Your task to perform on an android device: turn on the 12-hour format for clock Image 0: 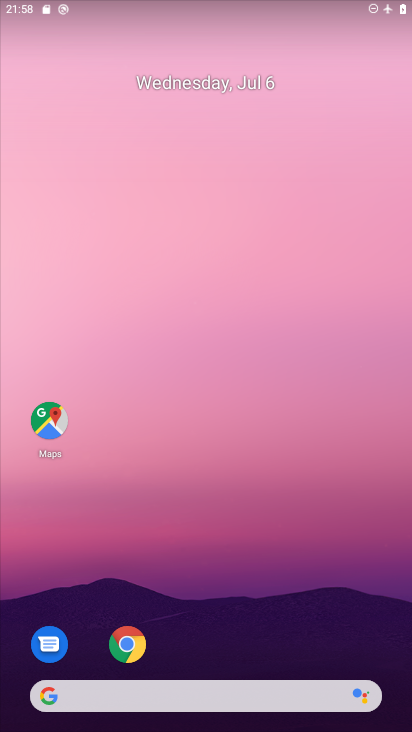
Step 0: drag from (203, 657) to (210, 176)
Your task to perform on an android device: turn on the 12-hour format for clock Image 1: 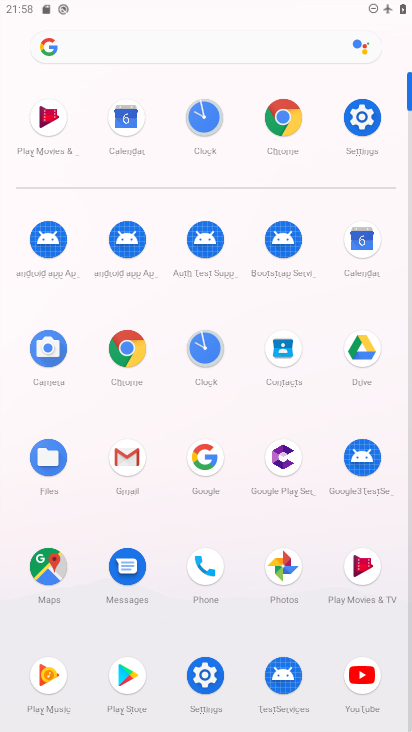
Step 1: click (214, 124)
Your task to perform on an android device: turn on the 12-hour format for clock Image 2: 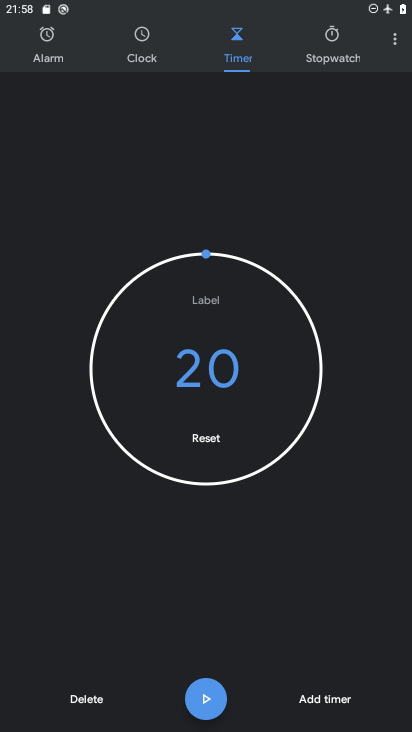
Step 2: click (394, 50)
Your task to perform on an android device: turn on the 12-hour format for clock Image 3: 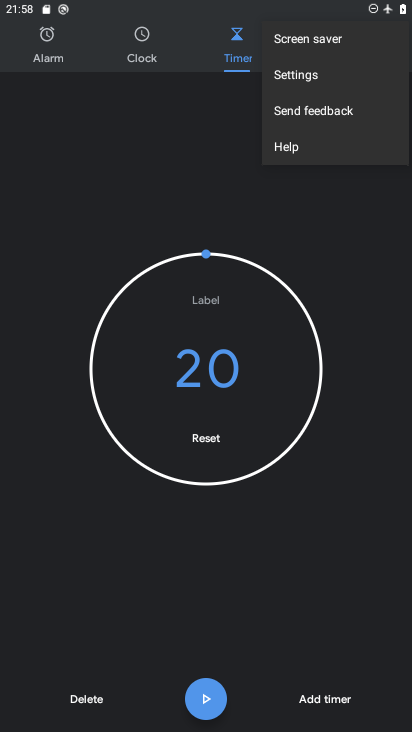
Step 3: click (322, 77)
Your task to perform on an android device: turn on the 12-hour format for clock Image 4: 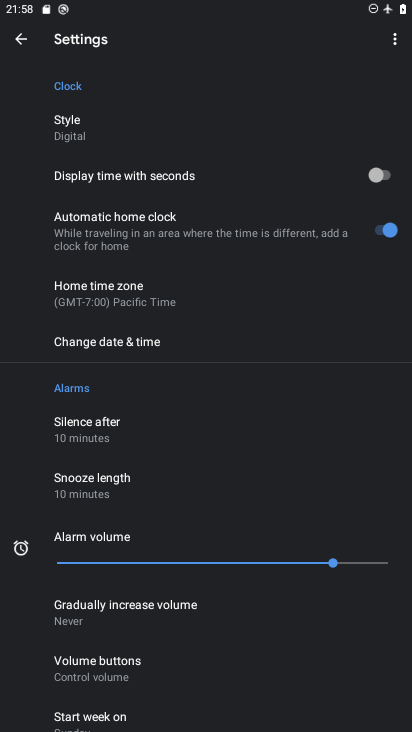
Step 4: click (164, 347)
Your task to perform on an android device: turn on the 12-hour format for clock Image 5: 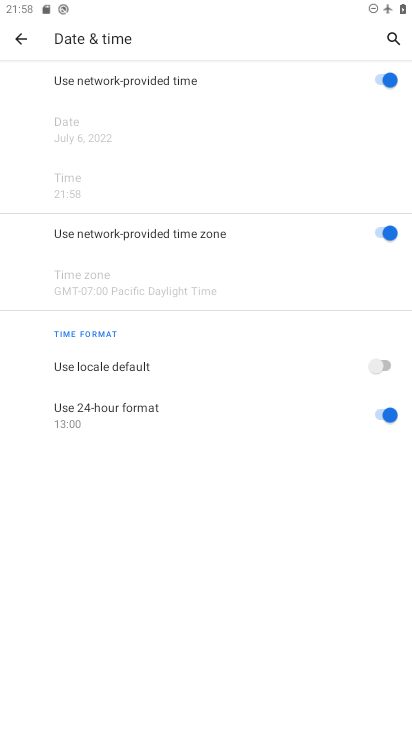
Step 5: click (368, 387)
Your task to perform on an android device: turn on the 12-hour format for clock Image 6: 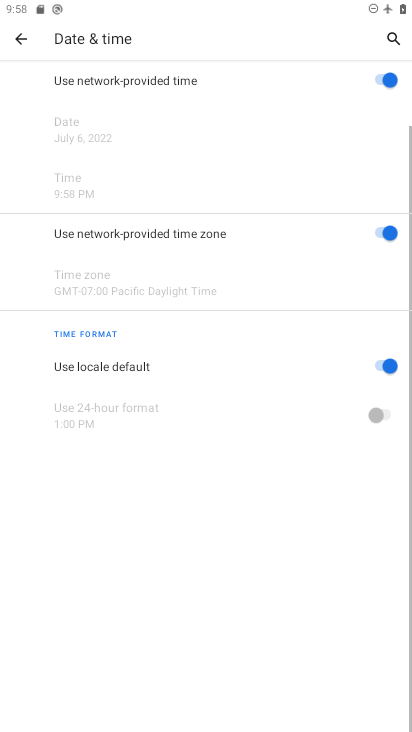
Step 6: click (375, 368)
Your task to perform on an android device: turn on the 12-hour format for clock Image 7: 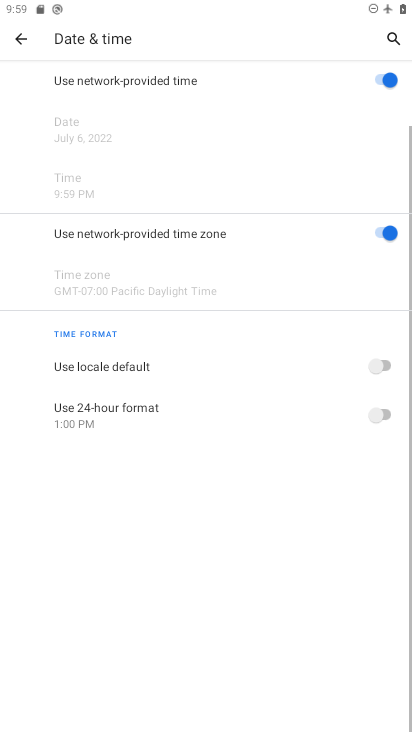
Step 7: click (390, 364)
Your task to perform on an android device: turn on the 12-hour format for clock Image 8: 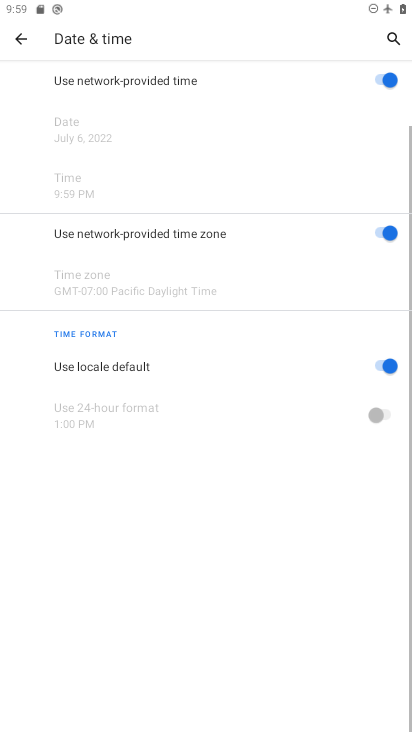
Step 8: task complete